Your task to perform on an android device: Open calendar and show me the fourth week of next month Image 0: 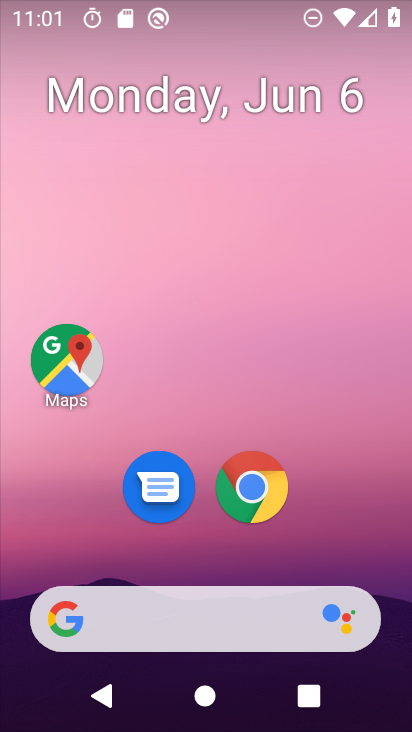
Step 0: drag from (387, 638) to (281, 44)
Your task to perform on an android device: Open calendar and show me the fourth week of next month Image 1: 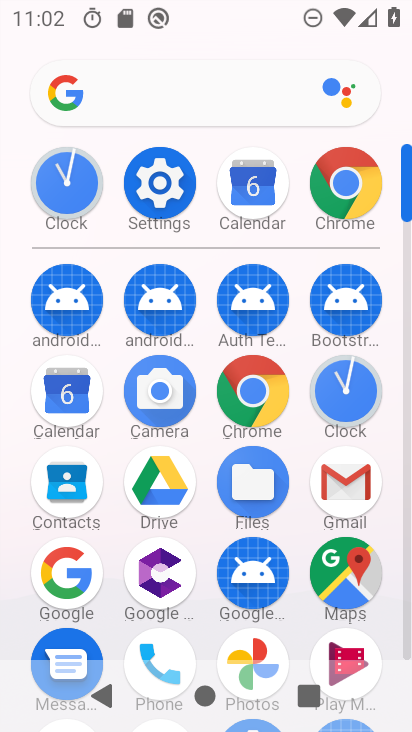
Step 1: click (62, 424)
Your task to perform on an android device: Open calendar and show me the fourth week of next month Image 2: 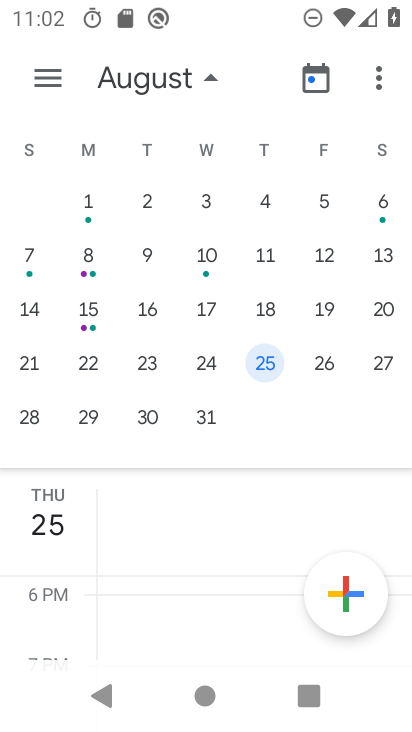
Step 2: drag from (349, 293) to (43, 252)
Your task to perform on an android device: Open calendar and show me the fourth week of next month Image 3: 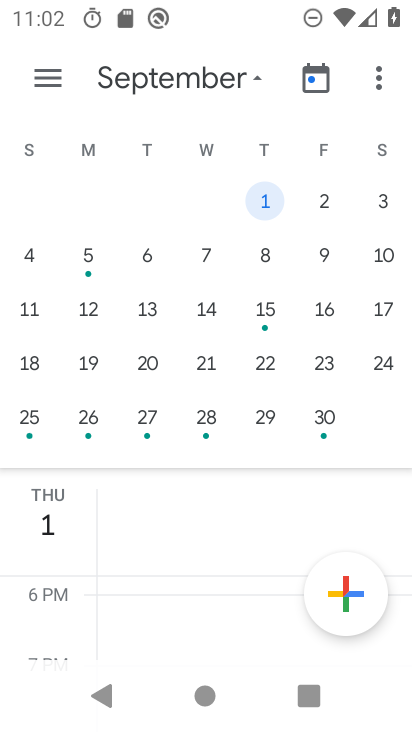
Step 3: click (85, 426)
Your task to perform on an android device: Open calendar and show me the fourth week of next month Image 4: 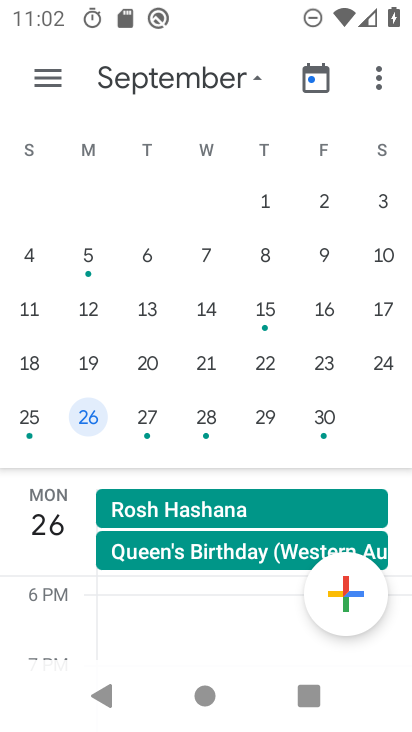
Step 4: task complete